Your task to perform on an android device: set the stopwatch Image 0: 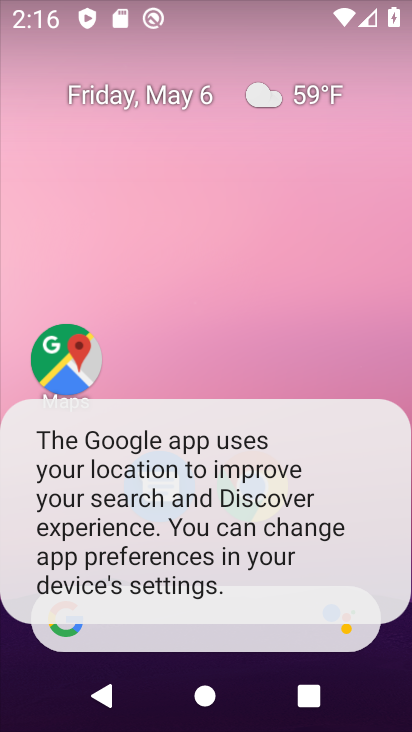
Step 0: press home button
Your task to perform on an android device: set the stopwatch Image 1: 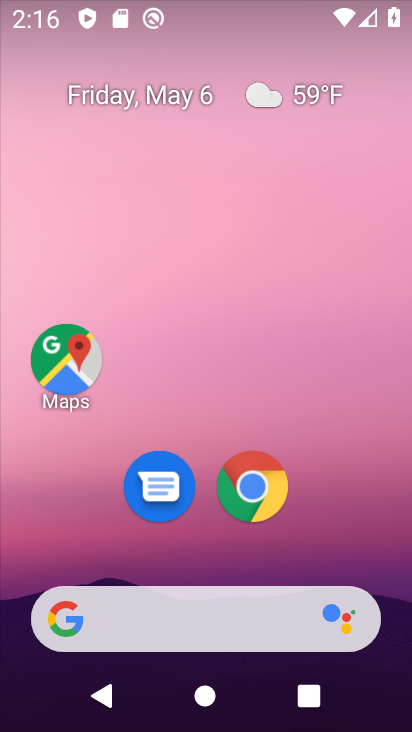
Step 1: drag from (329, 520) to (280, 40)
Your task to perform on an android device: set the stopwatch Image 2: 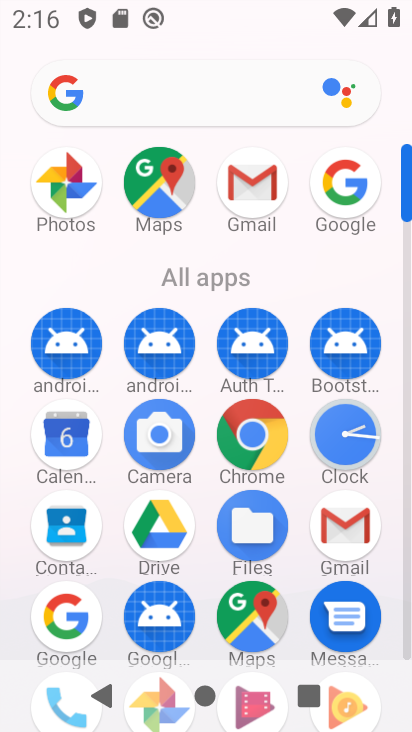
Step 2: click (344, 440)
Your task to perform on an android device: set the stopwatch Image 3: 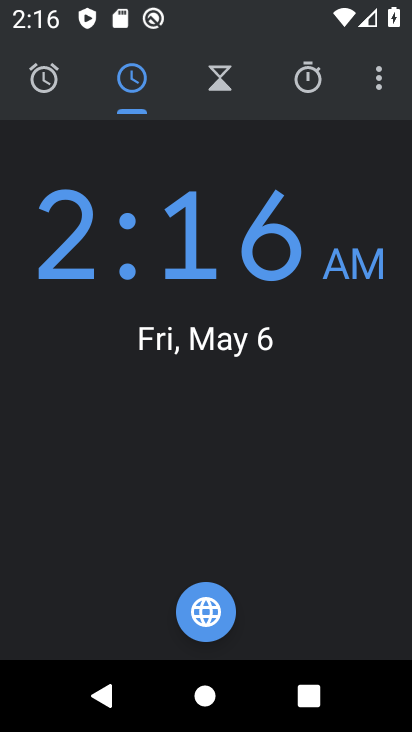
Step 3: click (379, 76)
Your task to perform on an android device: set the stopwatch Image 4: 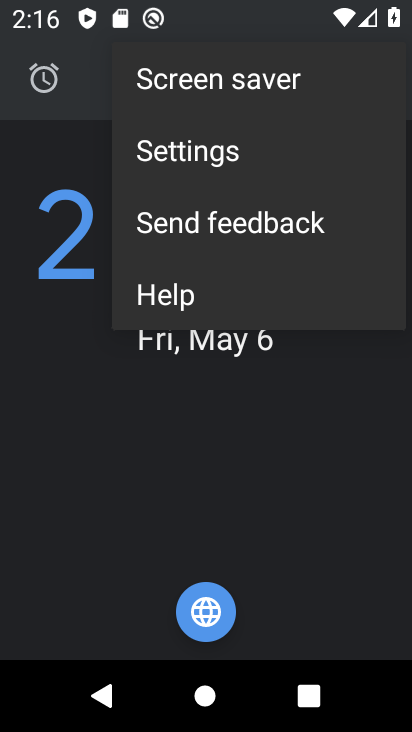
Step 4: click (343, 443)
Your task to perform on an android device: set the stopwatch Image 5: 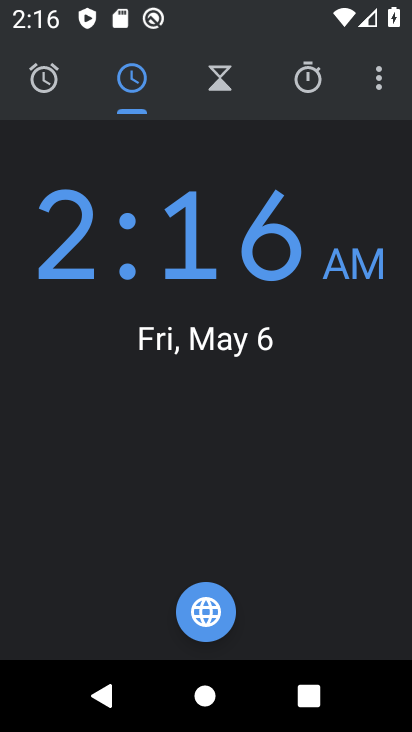
Step 5: click (311, 79)
Your task to perform on an android device: set the stopwatch Image 6: 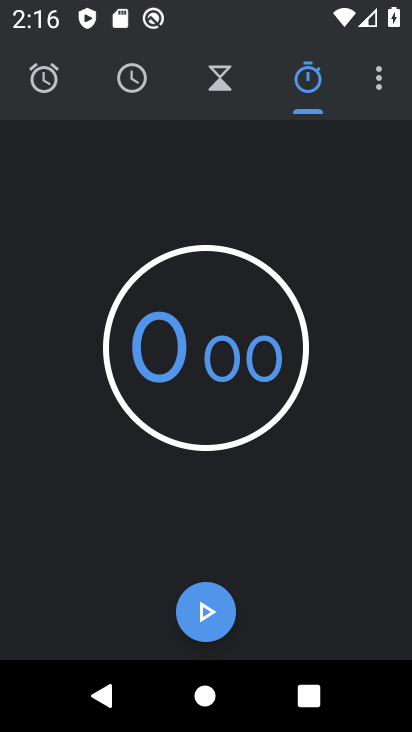
Step 6: task complete